Your task to perform on an android device: Open Youtube and go to "Your channel" Image 0: 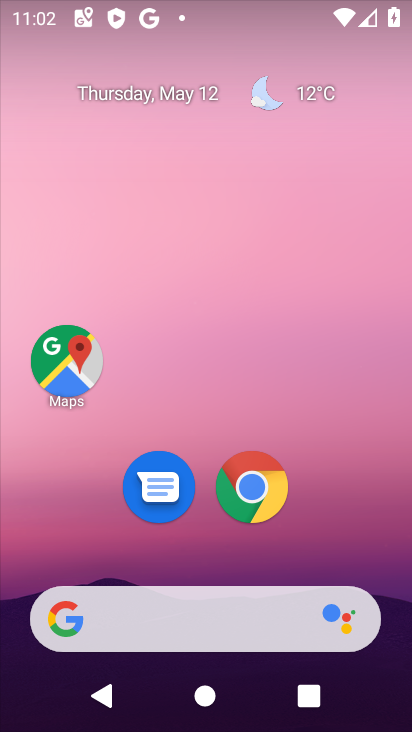
Step 0: drag from (365, 557) to (345, 10)
Your task to perform on an android device: Open Youtube and go to "Your channel" Image 1: 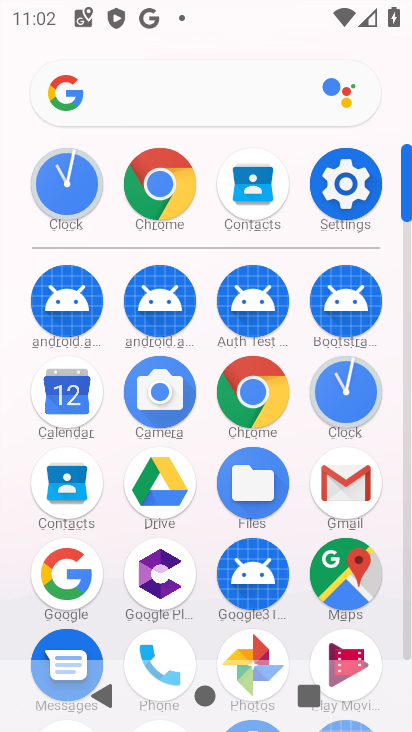
Step 1: drag from (403, 600) to (410, 527)
Your task to perform on an android device: Open Youtube and go to "Your channel" Image 2: 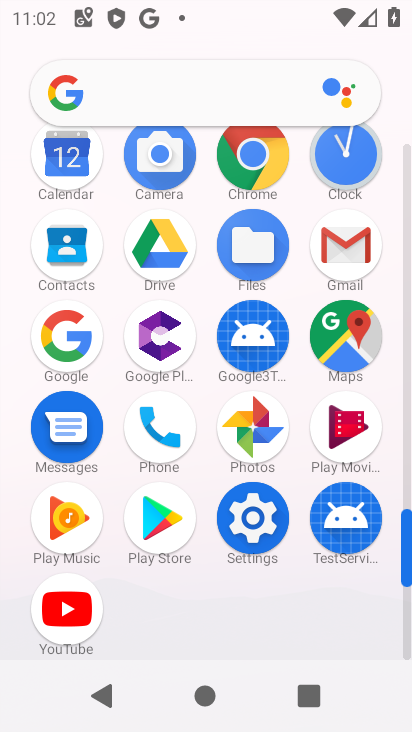
Step 2: click (64, 621)
Your task to perform on an android device: Open Youtube and go to "Your channel" Image 3: 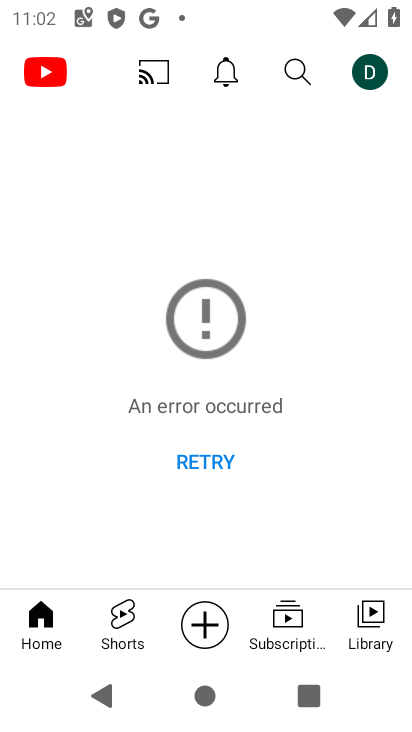
Step 3: click (367, 72)
Your task to perform on an android device: Open Youtube and go to "Your channel" Image 4: 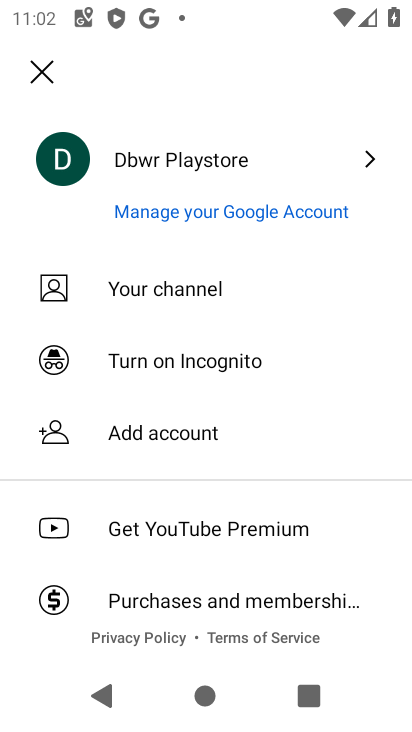
Step 4: click (153, 287)
Your task to perform on an android device: Open Youtube and go to "Your channel" Image 5: 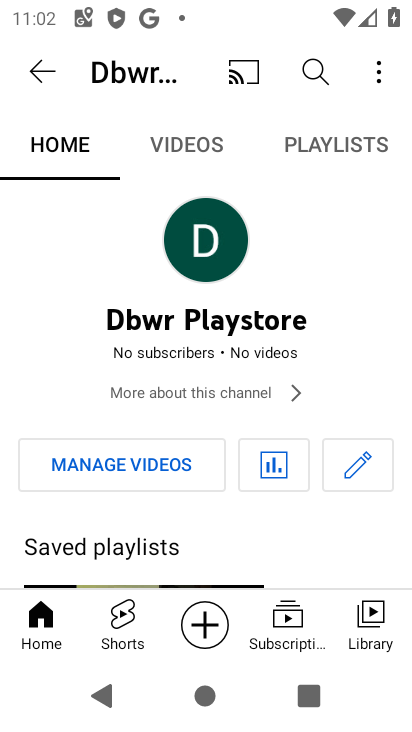
Step 5: task complete